Your task to perform on an android device: Is it going to rain tomorrow? Image 0: 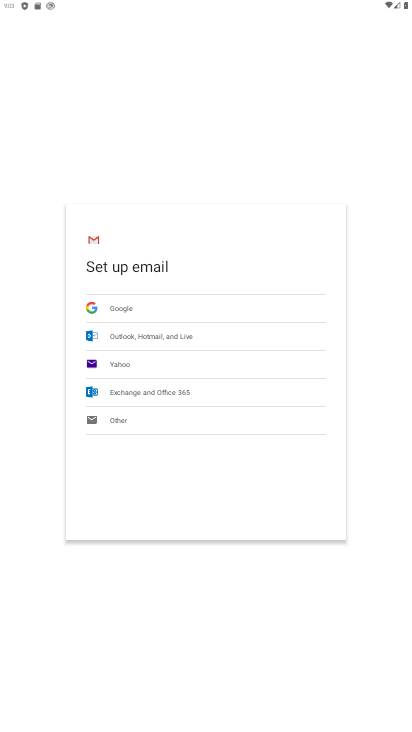
Step 0: press home button
Your task to perform on an android device: Is it going to rain tomorrow? Image 1: 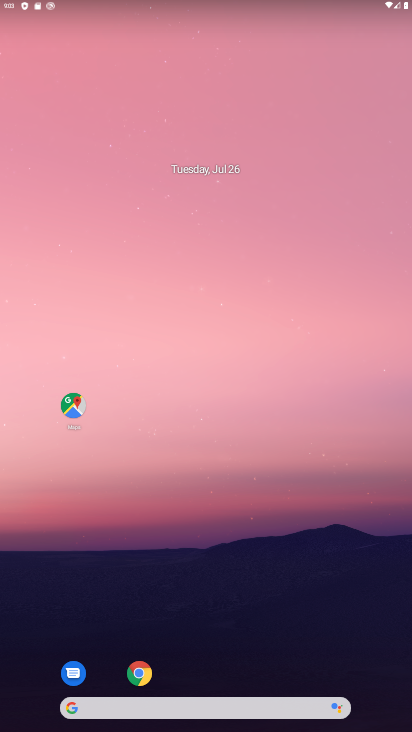
Step 1: drag from (175, 707) to (176, 375)
Your task to perform on an android device: Is it going to rain tomorrow? Image 2: 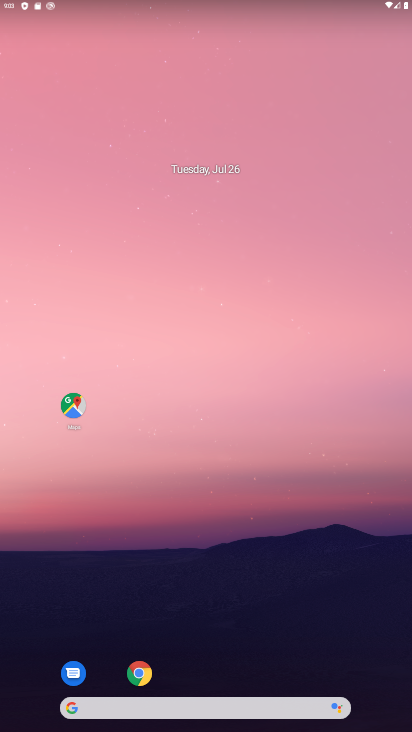
Step 2: drag from (167, 711) to (274, 256)
Your task to perform on an android device: Is it going to rain tomorrow? Image 3: 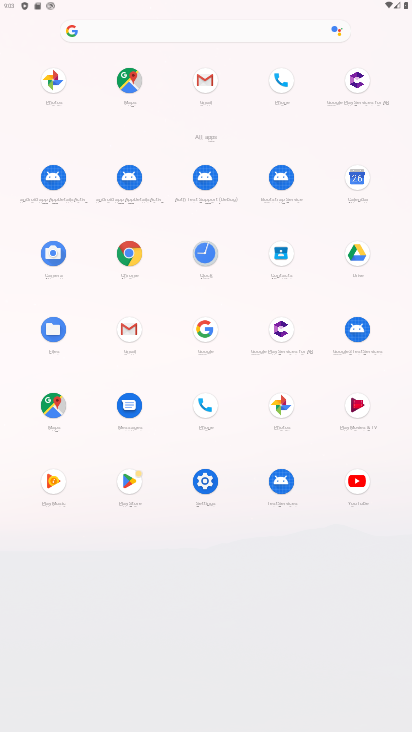
Step 3: click (201, 329)
Your task to perform on an android device: Is it going to rain tomorrow? Image 4: 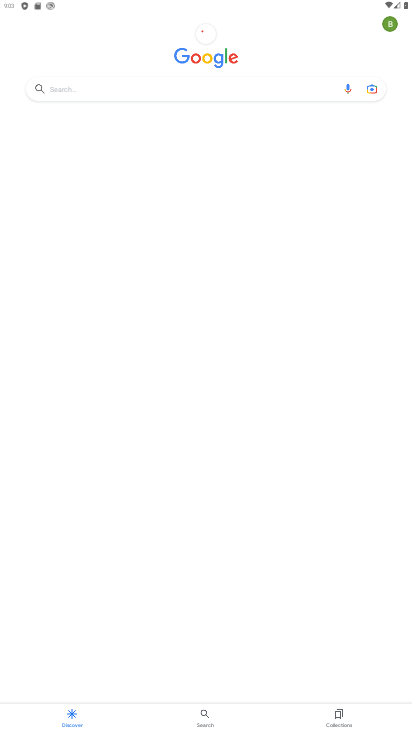
Step 4: click (238, 87)
Your task to perform on an android device: Is it going to rain tomorrow? Image 5: 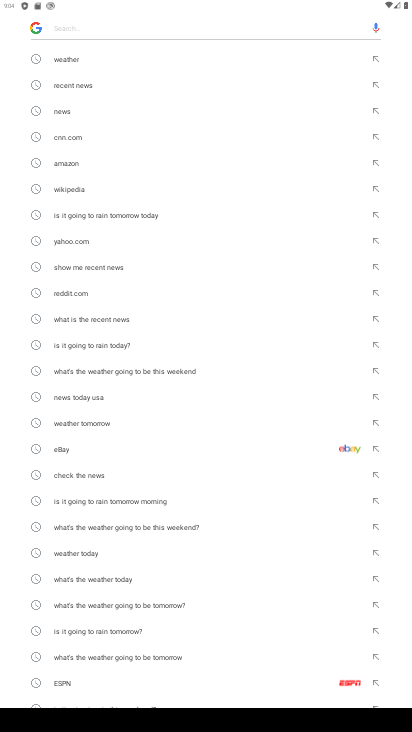
Step 5: type "Is it going to rain tomorrow?"
Your task to perform on an android device: Is it going to rain tomorrow? Image 6: 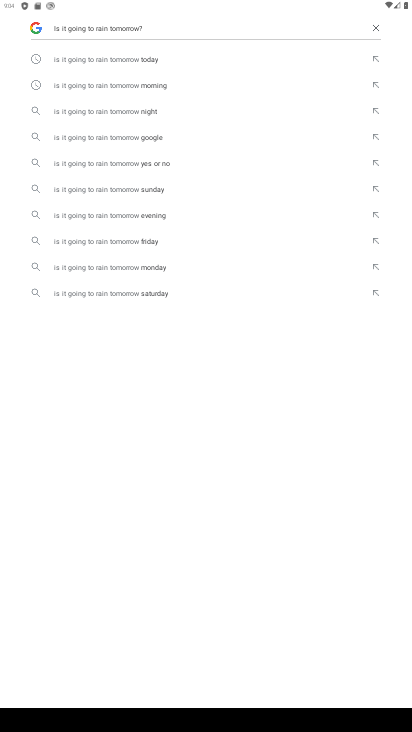
Step 6: click (133, 60)
Your task to perform on an android device: Is it going to rain tomorrow? Image 7: 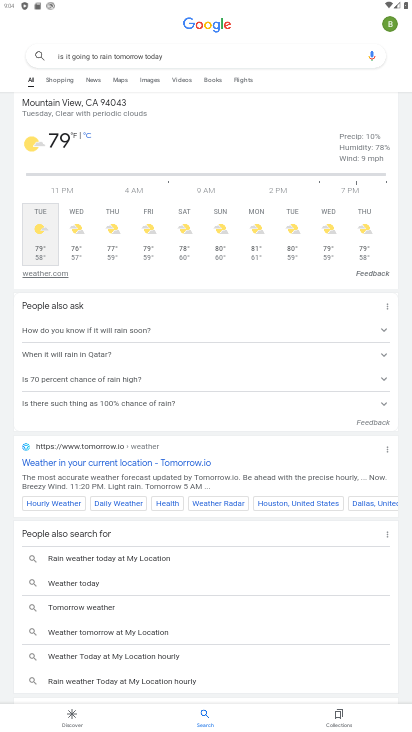
Step 7: task complete